Your task to perform on an android device: delete the emails in spam in the gmail app Image 0: 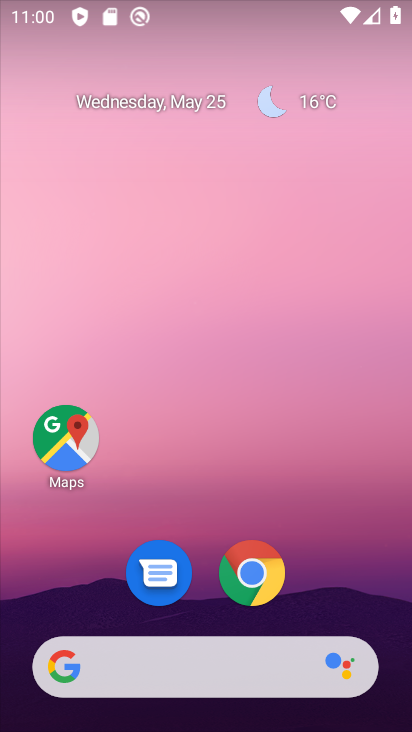
Step 0: drag from (382, 588) to (317, 25)
Your task to perform on an android device: delete the emails in spam in the gmail app Image 1: 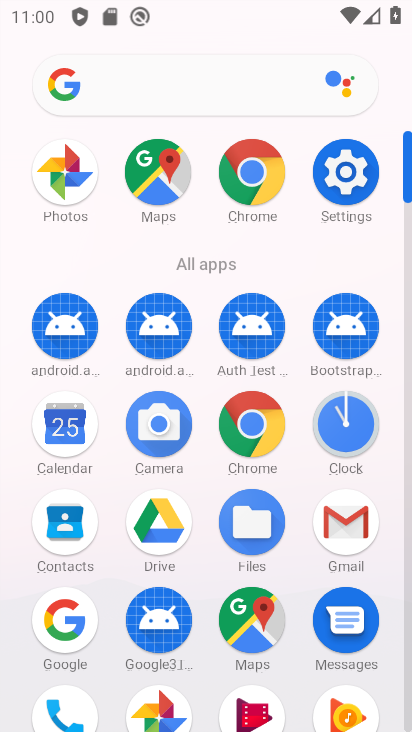
Step 1: click (343, 532)
Your task to perform on an android device: delete the emails in spam in the gmail app Image 2: 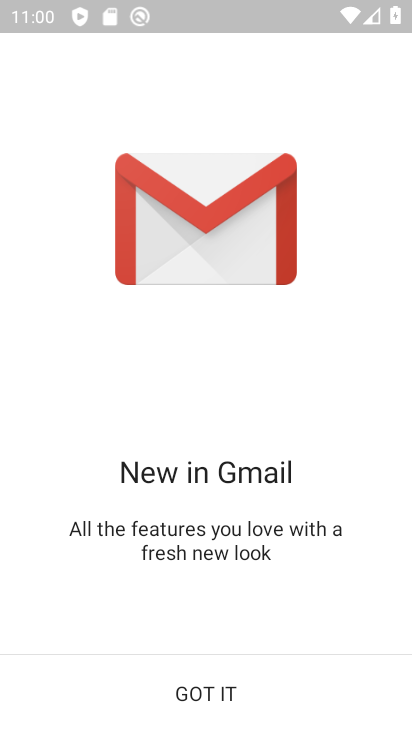
Step 2: click (202, 704)
Your task to perform on an android device: delete the emails in spam in the gmail app Image 3: 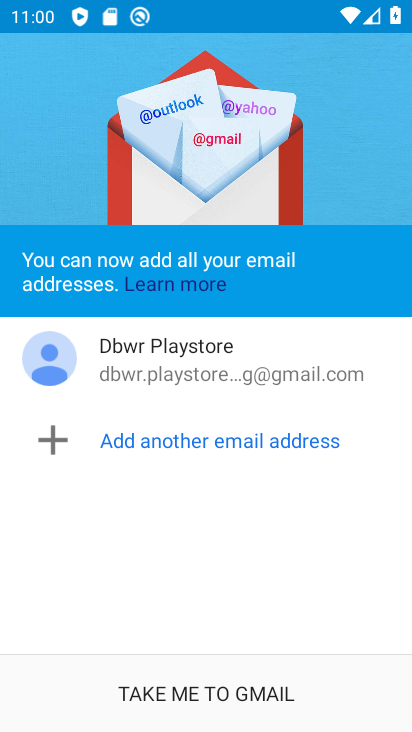
Step 3: click (193, 702)
Your task to perform on an android device: delete the emails in spam in the gmail app Image 4: 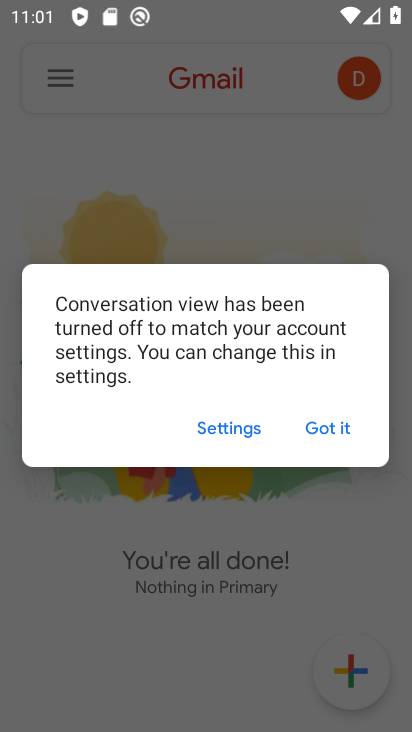
Step 4: click (333, 429)
Your task to perform on an android device: delete the emails in spam in the gmail app Image 5: 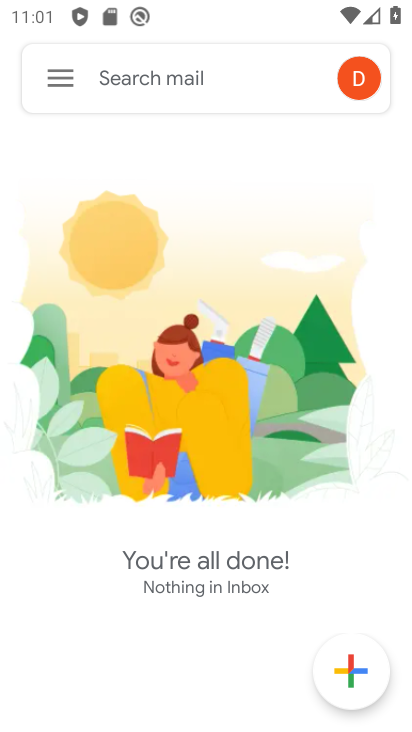
Step 5: click (65, 80)
Your task to perform on an android device: delete the emails in spam in the gmail app Image 6: 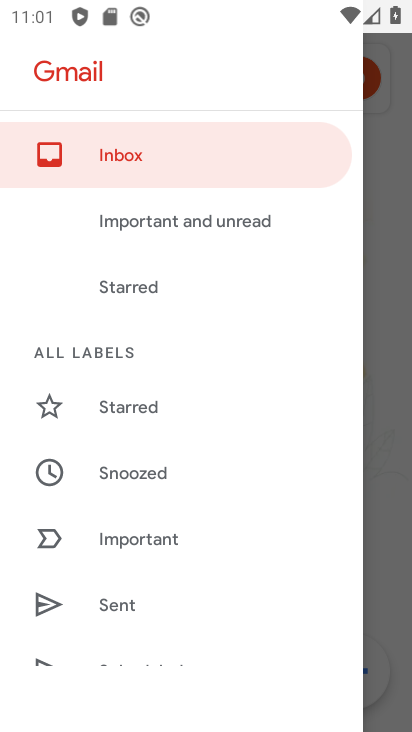
Step 6: drag from (224, 593) to (179, 176)
Your task to perform on an android device: delete the emails in spam in the gmail app Image 7: 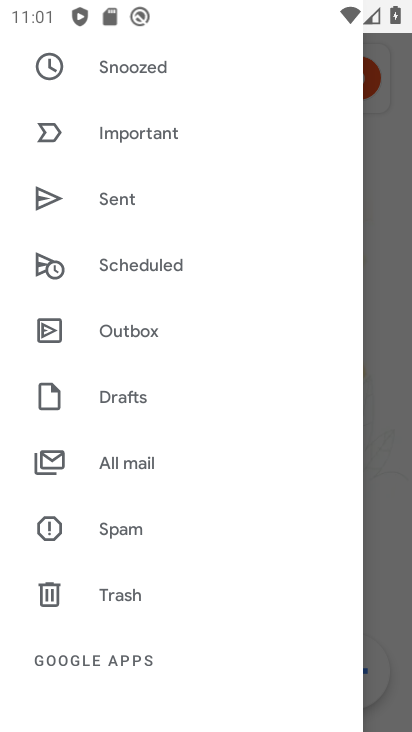
Step 7: click (118, 533)
Your task to perform on an android device: delete the emails in spam in the gmail app Image 8: 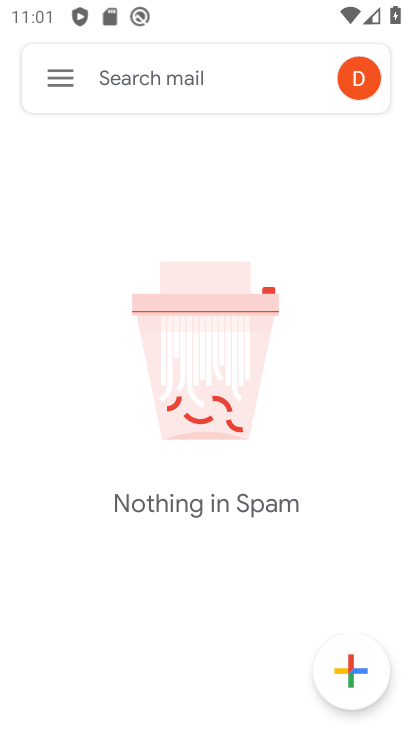
Step 8: task complete